Your task to perform on an android device: Search for the best rated 150-piece drill bit set on Aliexpress. Image 0: 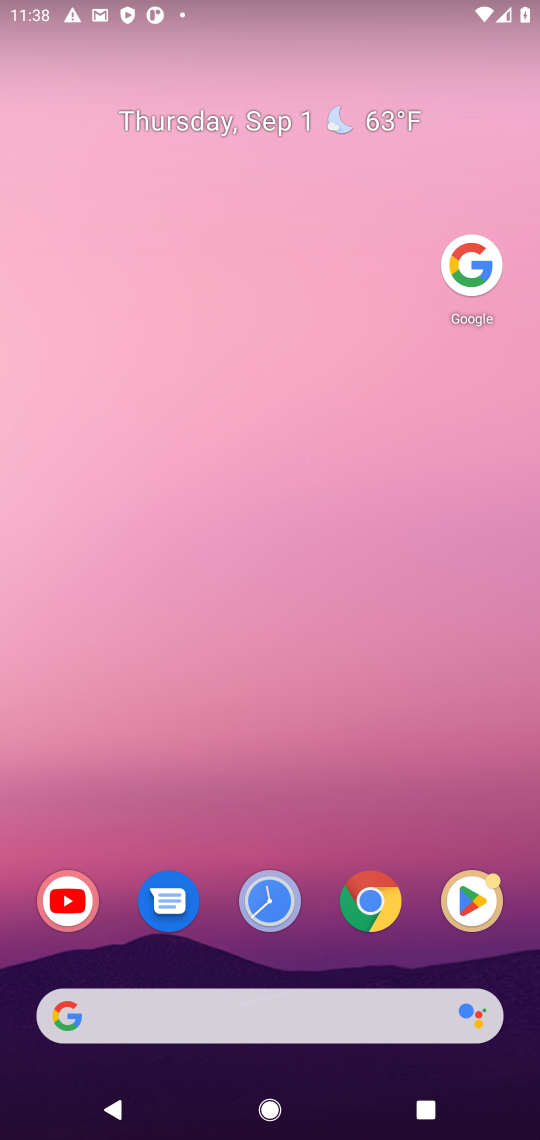
Step 0: drag from (235, 959) to (285, 337)
Your task to perform on an android device: Search for the best rated 150-piece drill bit set on Aliexpress. Image 1: 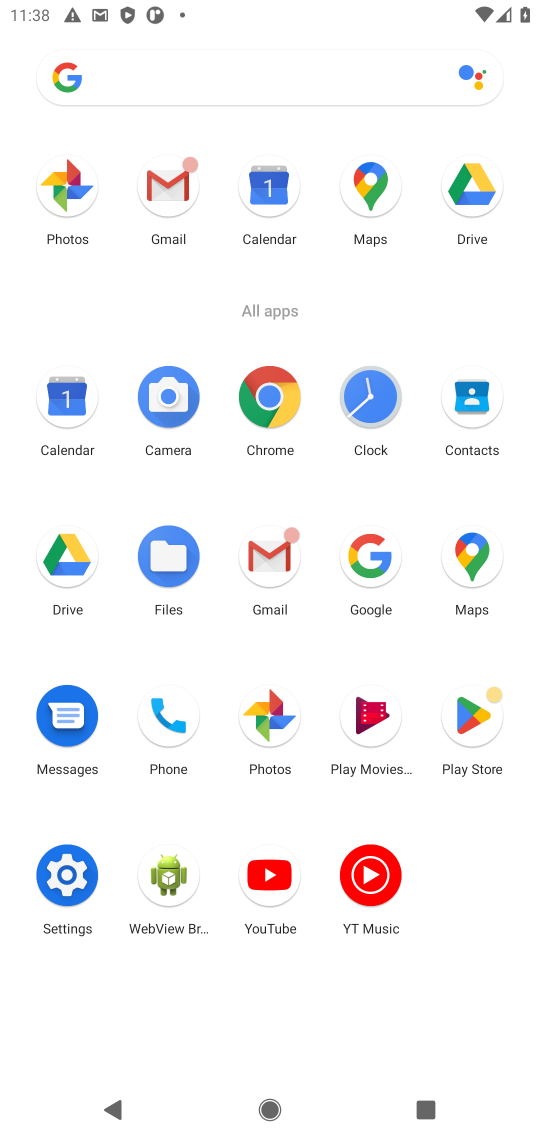
Step 1: click (377, 545)
Your task to perform on an android device: Search for the best rated 150-piece drill bit set on Aliexpress. Image 2: 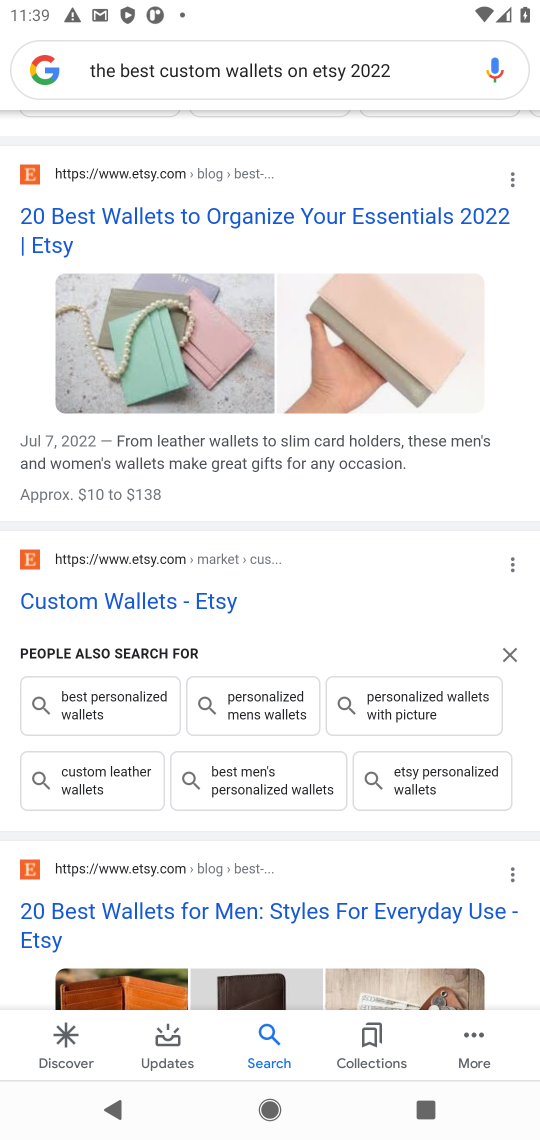
Step 2: click (404, 58)
Your task to perform on an android device: Search for the best rated 150-piece drill bit set on Aliexpress. Image 3: 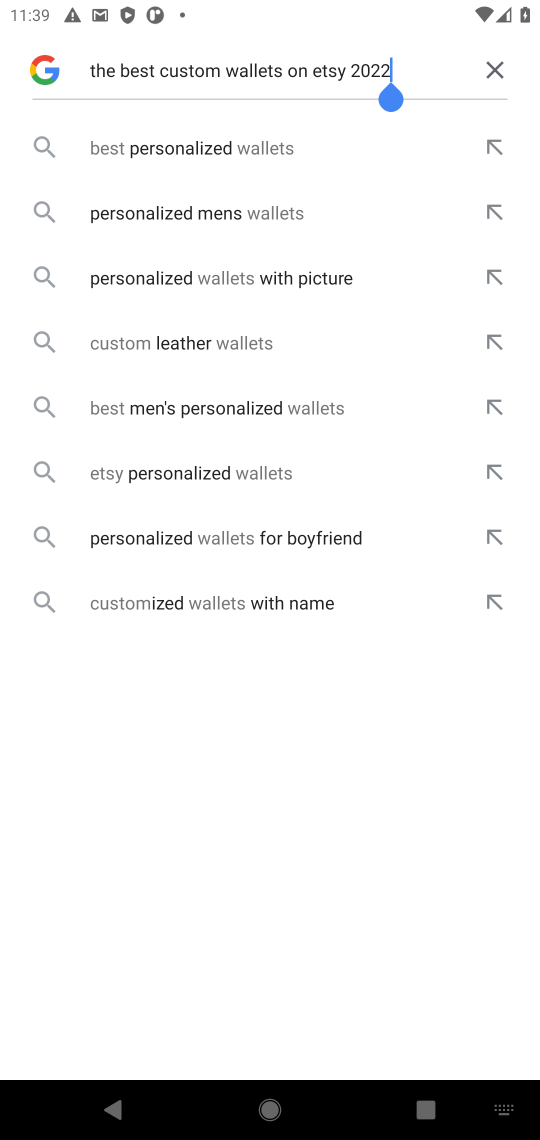
Step 3: click (511, 64)
Your task to perform on an android device: Search for the best rated 150-piece drill bit set on Aliexpress. Image 4: 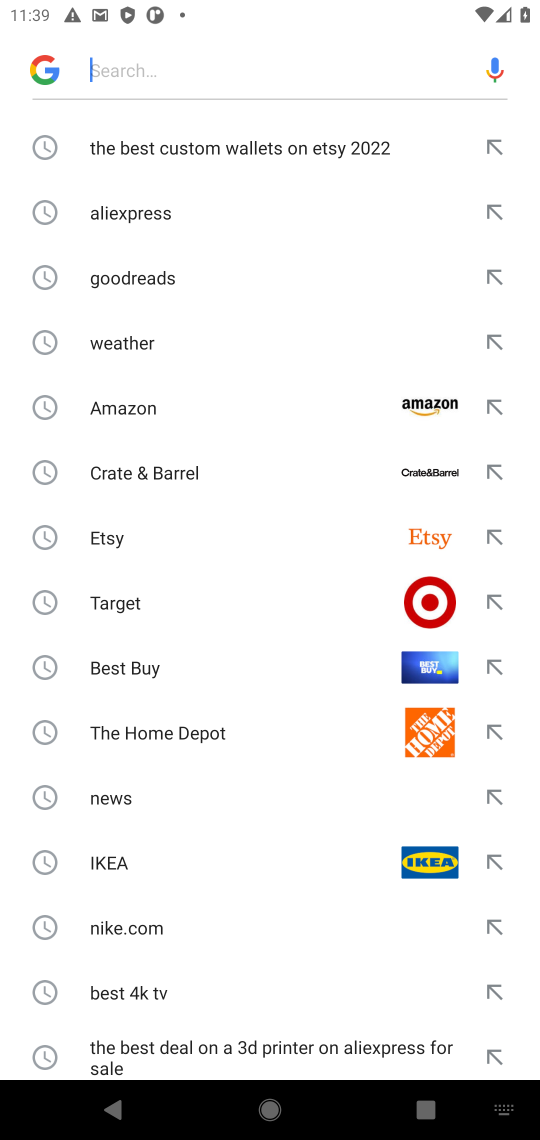
Step 4: click (243, 40)
Your task to perform on an android device: Search for the best rated 150-piece drill bit set on Aliexpress. Image 5: 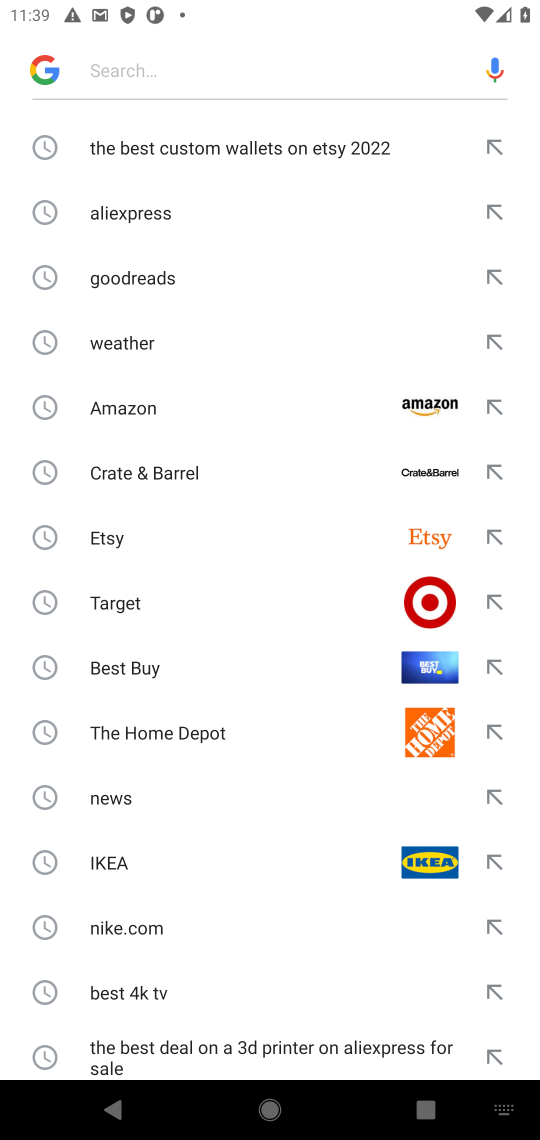
Step 5: type "the best rated 150-piece drill bit set on Aliexpress "
Your task to perform on an android device: Search for the best rated 150-piece drill bit set on Aliexpress. Image 6: 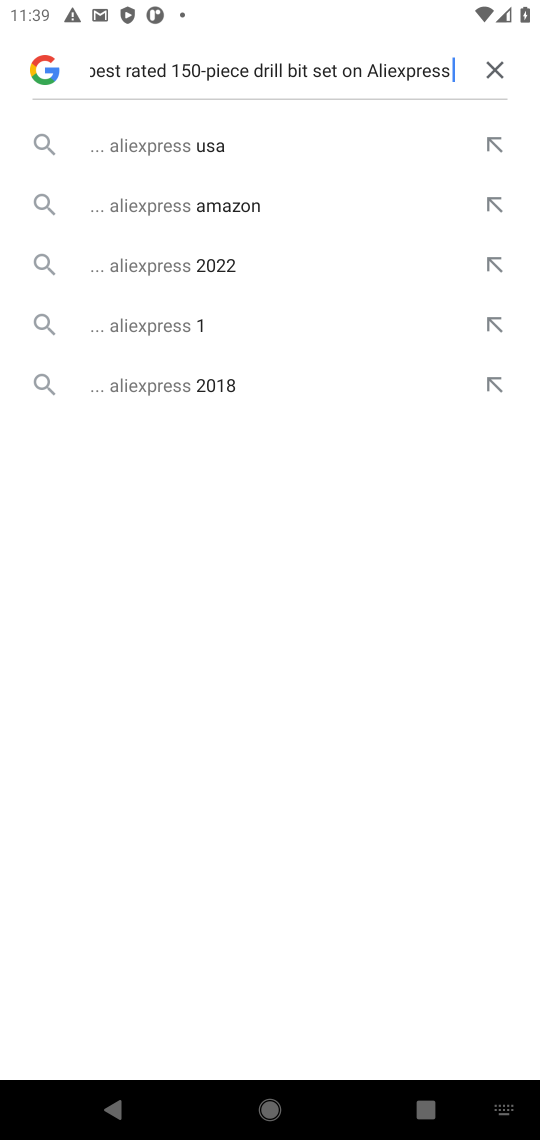
Step 6: click (211, 127)
Your task to perform on an android device: Search for the best rated 150-piece drill bit set on Aliexpress. Image 7: 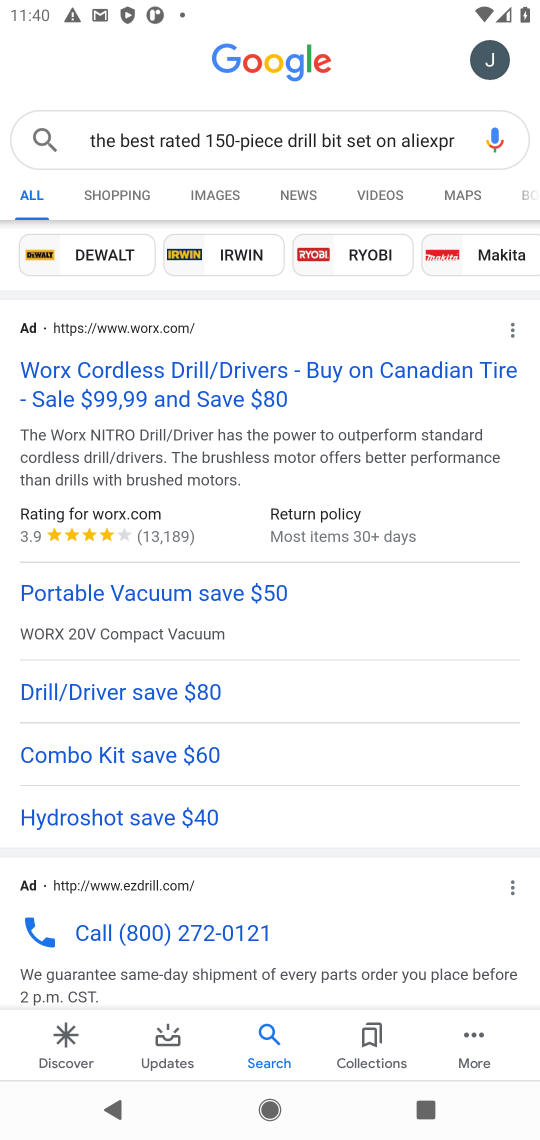
Step 7: click (181, 399)
Your task to perform on an android device: Search for the best rated 150-piece drill bit set on Aliexpress. Image 8: 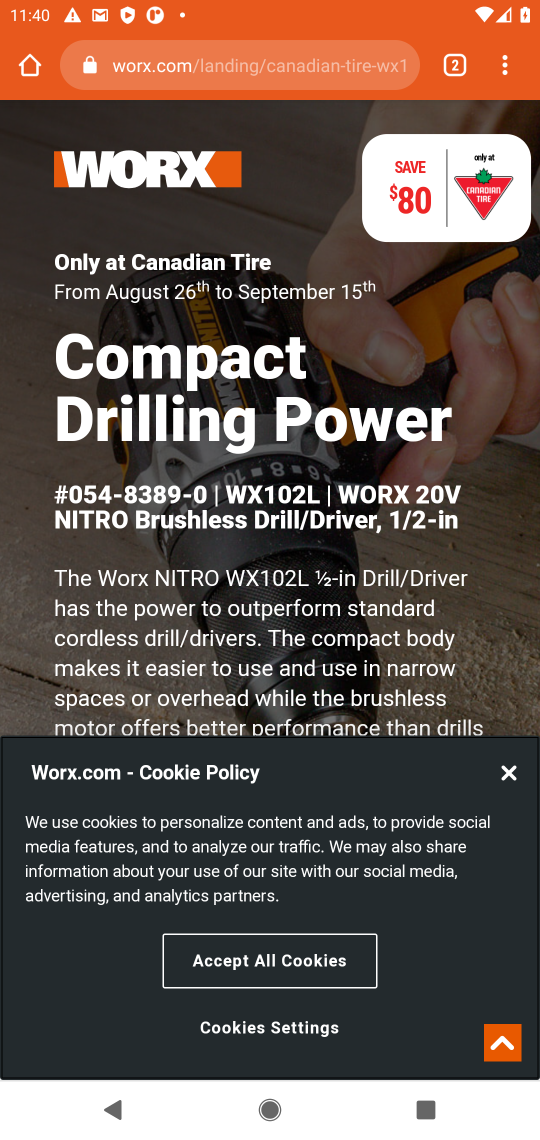
Step 8: drag from (213, 408) to (250, 183)
Your task to perform on an android device: Search for the best rated 150-piece drill bit set on Aliexpress. Image 9: 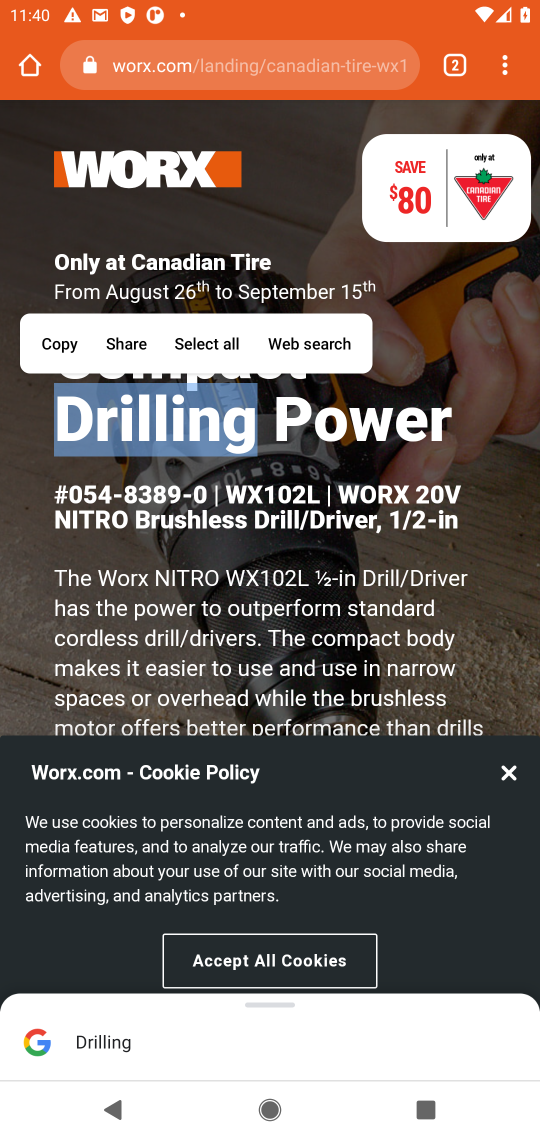
Step 9: click (522, 767)
Your task to perform on an android device: Search for the best rated 150-piece drill bit set on Aliexpress. Image 10: 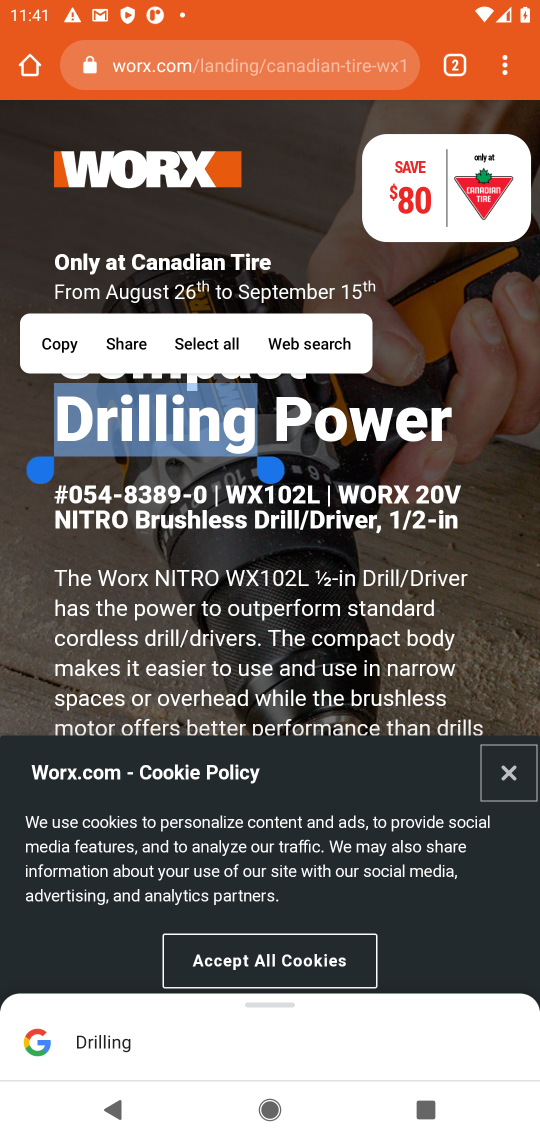
Step 10: click (496, 775)
Your task to perform on an android device: Search for the best rated 150-piece drill bit set on Aliexpress. Image 11: 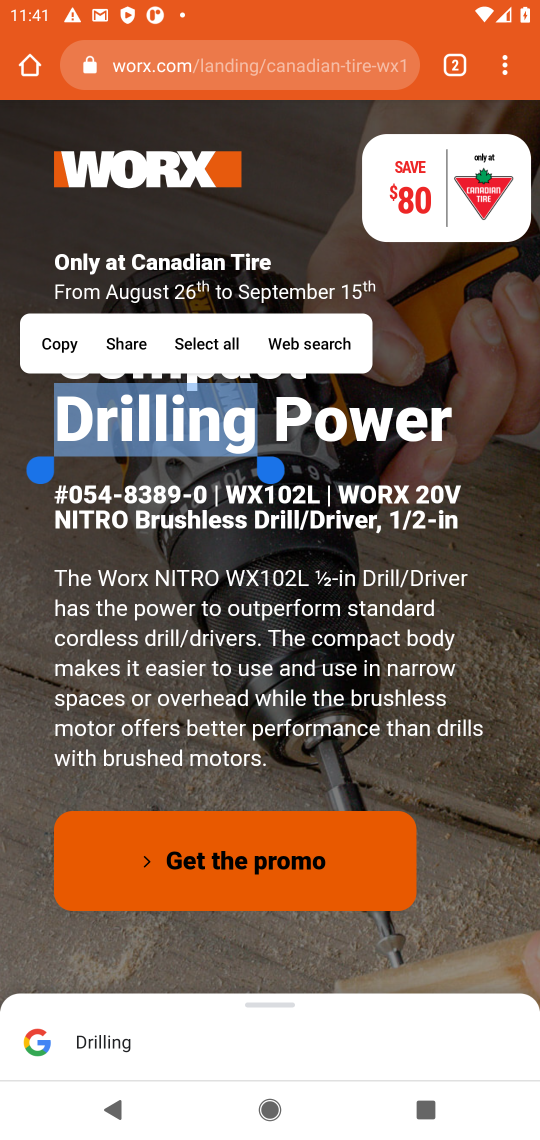
Step 11: task complete